Your task to perform on an android device: make emails show in primary in the gmail app Image 0: 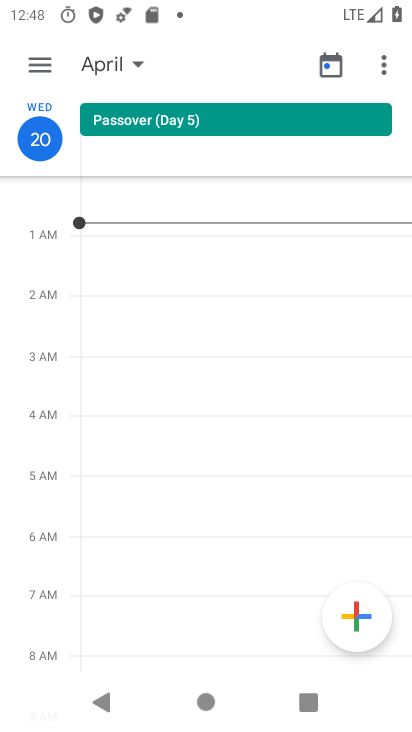
Step 0: press home button
Your task to perform on an android device: make emails show in primary in the gmail app Image 1: 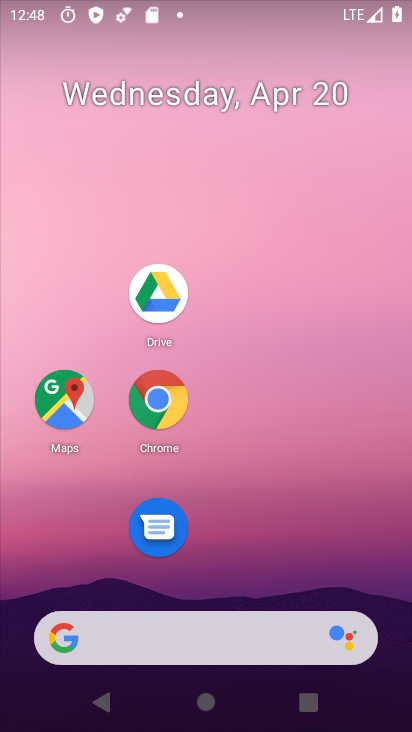
Step 1: drag from (279, 622) to (193, 145)
Your task to perform on an android device: make emails show in primary in the gmail app Image 2: 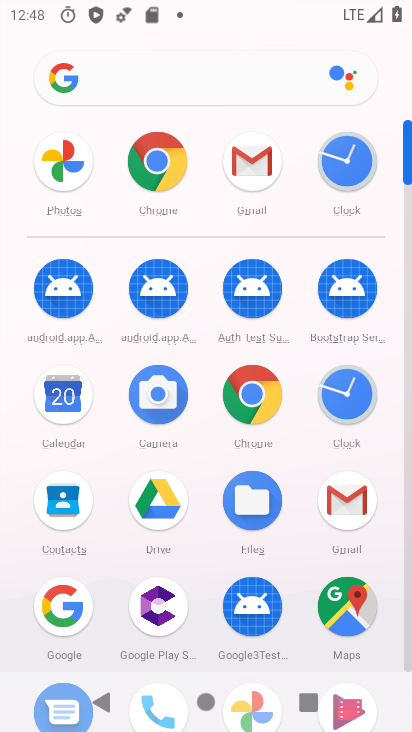
Step 2: click (345, 487)
Your task to perform on an android device: make emails show in primary in the gmail app Image 3: 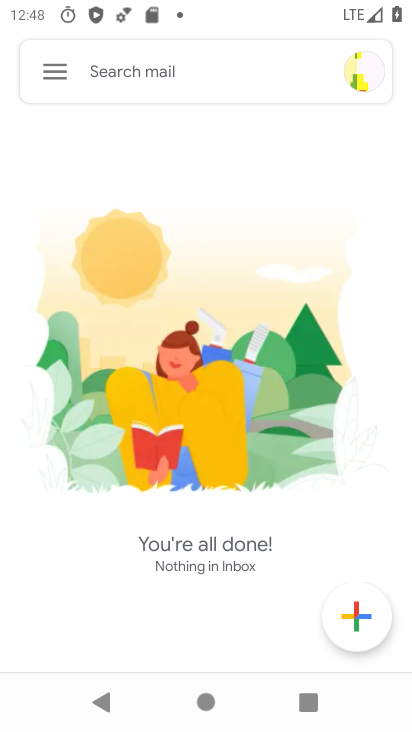
Step 3: click (46, 80)
Your task to perform on an android device: make emails show in primary in the gmail app Image 4: 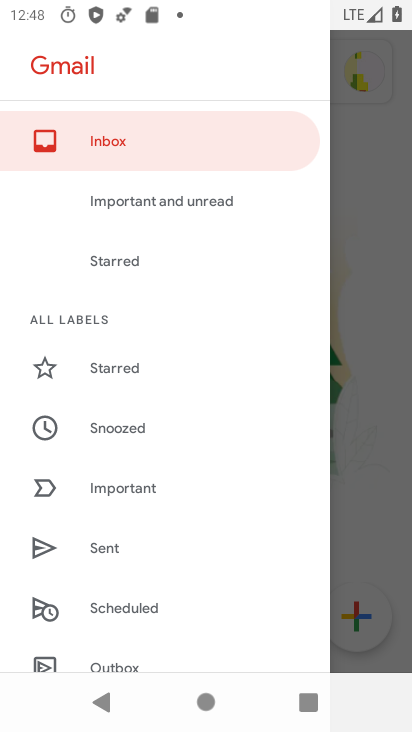
Step 4: drag from (149, 498) to (165, 305)
Your task to perform on an android device: make emails show in primary in the gmail app Image 5: 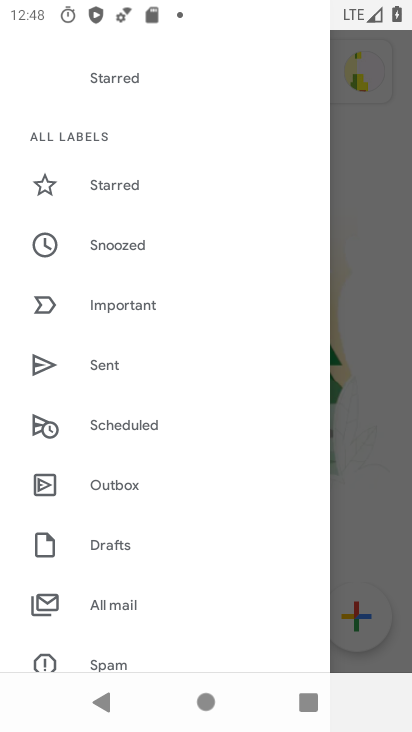
Step 5: drag from (149, 487) to (103, 339)
Your task to perform on an android device: make emails show in primary in the gmail app Image 6: 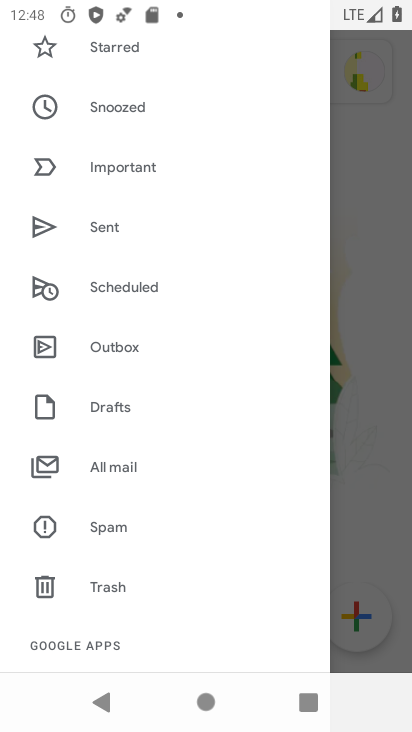
Step 6: drag from (116, 557) to (142, 370)
Your task to perform on an android device: make emails show in primary in the gmail app Image 7: 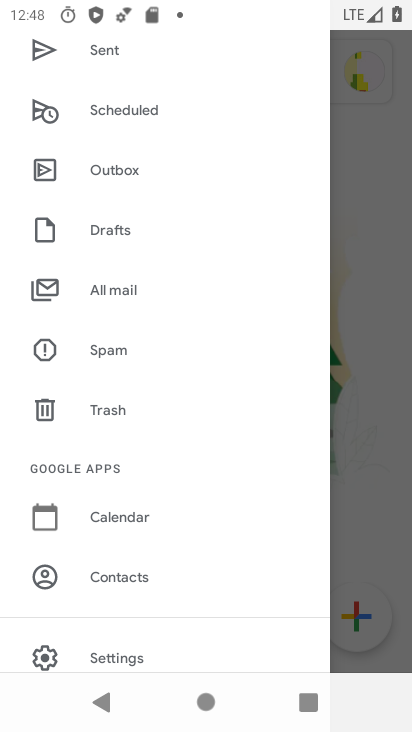
Step 7: click (115, 642)
Your task to perform on an android device: make emails show in primary in the gmail app Image 8: 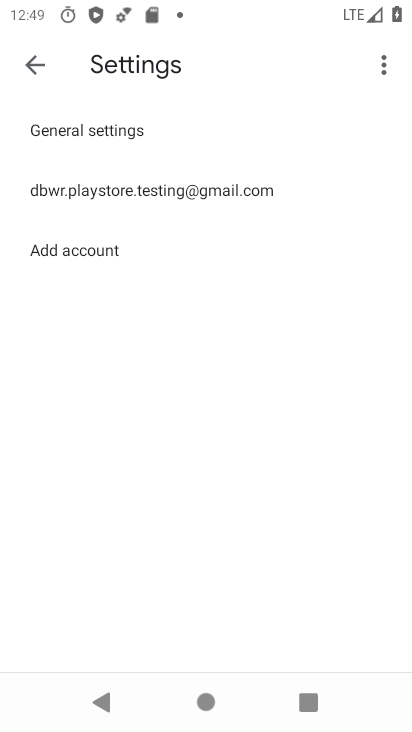
Step 8: click (144, 197)
Your task to perform on an android device: make emails show in primary in the gmail app Image 9: 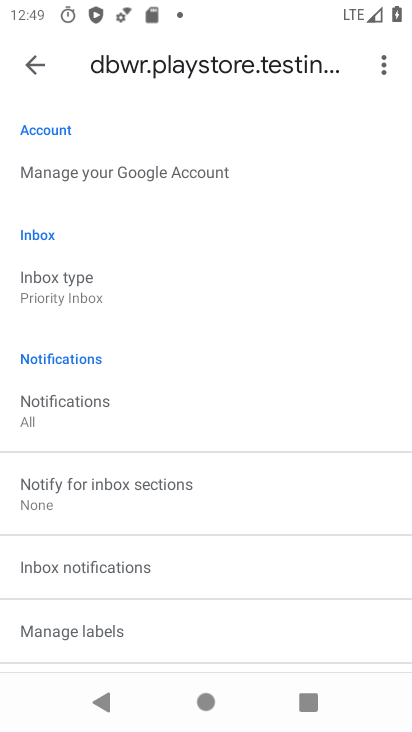
Step 9: click (104, 299)
Your task to perform on an android device: make emails show in primary in the gmail app Image 10: 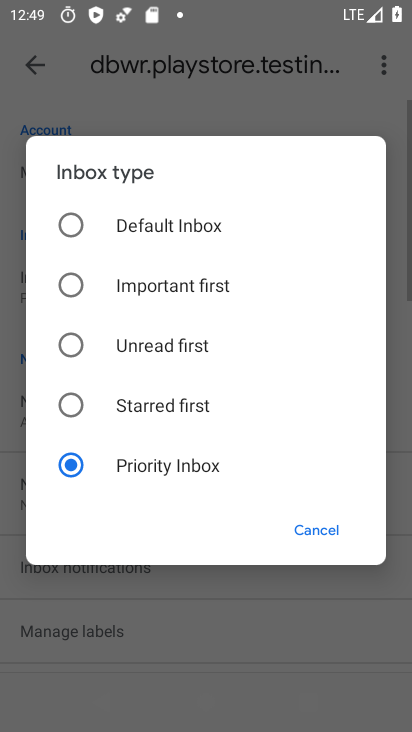
Step 10: click (123, 234)
Your task to perform on an android device: make emails show in primary in the gmail app Image 11: 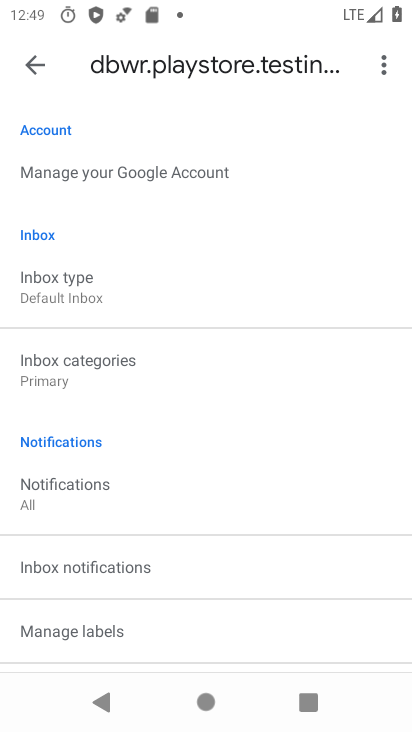
Step 11: task complete